Your task to perform on an android device: turn vacation reply on in the gmail app Image 0: 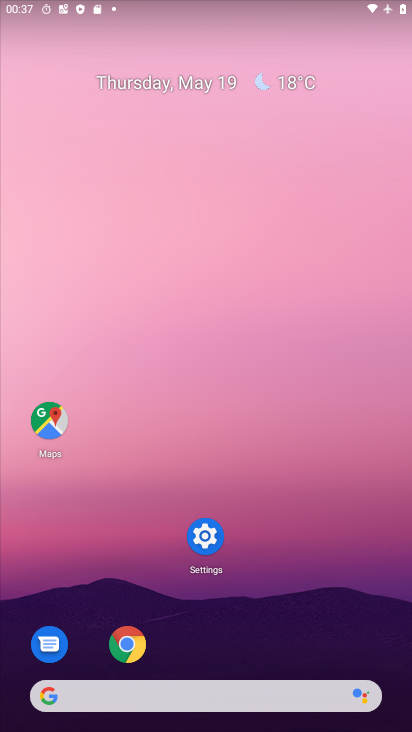
Step 0: drag from (300, 608) to (272, 124)
Your task to perform on an android device: turn vacation reply on in the gmail app Image 1: 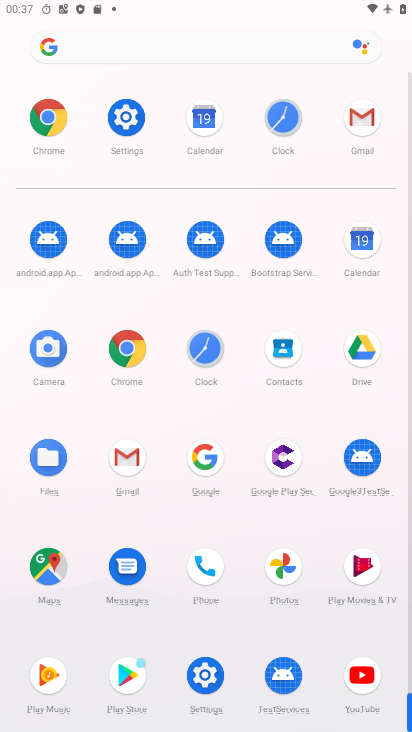
Step 1: click (376, 118)
Your task to perform on an android device: turn vacation reply on in the gmail app Image 2: 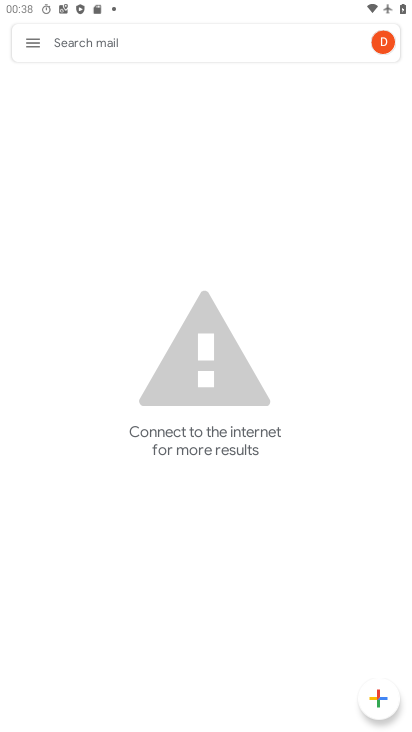
Step 2: click (28, 40)
Your task to perform on an android device: turn vacation reply on in the gmail app Image 3: 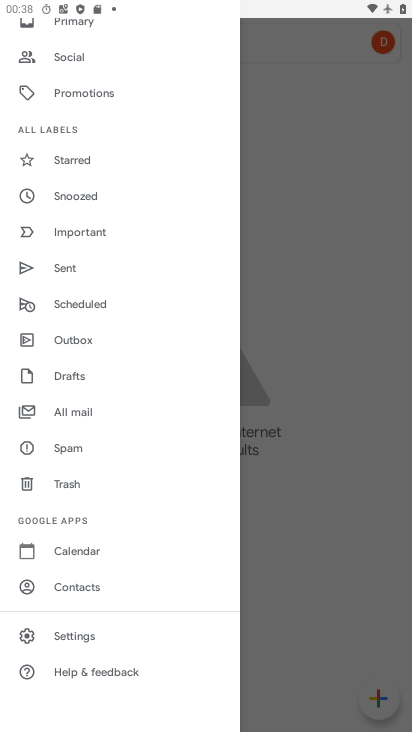
Step 3: drag from (152, 607) to (191, 213)
Your task to perform on an android device: turn vacation reply on in the gmail app Image 4: 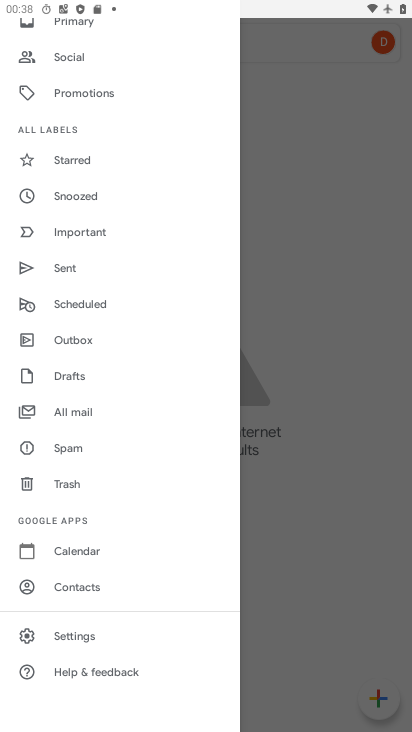
Step 4: click (83, 633)
Your task to perform on an android device: turn vacation reply on in the gmail app Image 5: 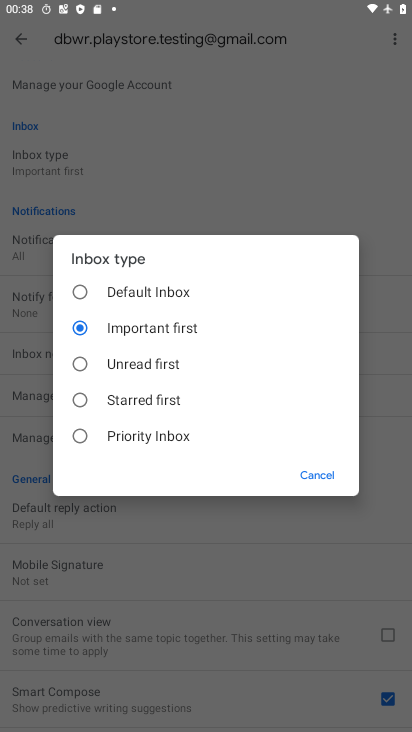
Step 5: click (317, 482)
Your task to perform on an android device: turn vacation reply on in the gmail app Image 6: 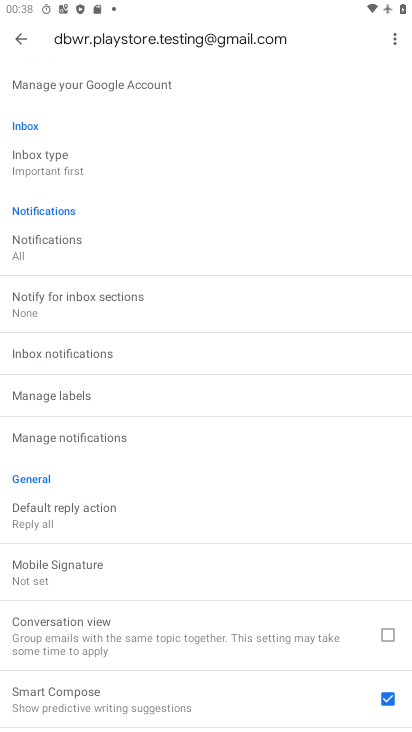
Step 6: drag from (107, 181) to (128, 397)
Your task to perform on an android device: turn vacation reply on in the gmail app Image 7: 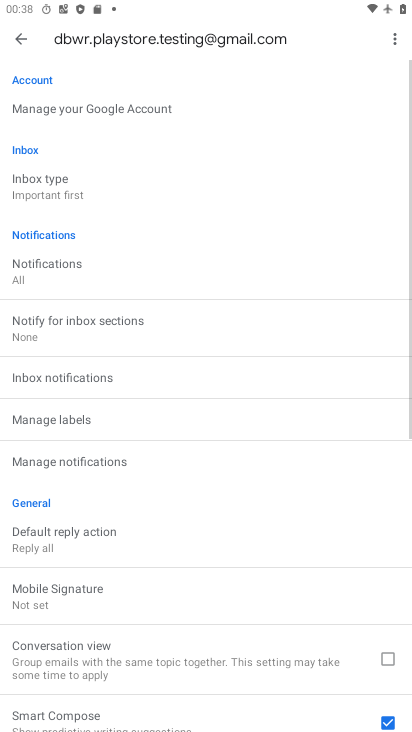
Step 7: drag from (152, 427) to (219, 647)
Your task to perform on an android device: turn vacation reply on in the gmail app Image 8: 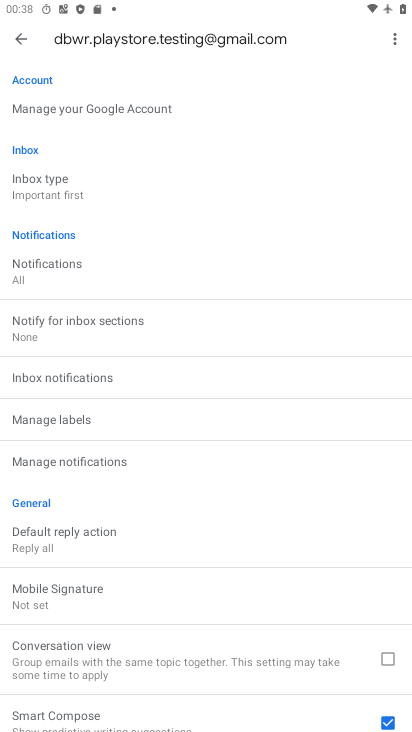
Step 8: drag from (142, 437) to (245, 175)
Your task to perform on an android device: turn vacation reply on in the gmail app Image 9: 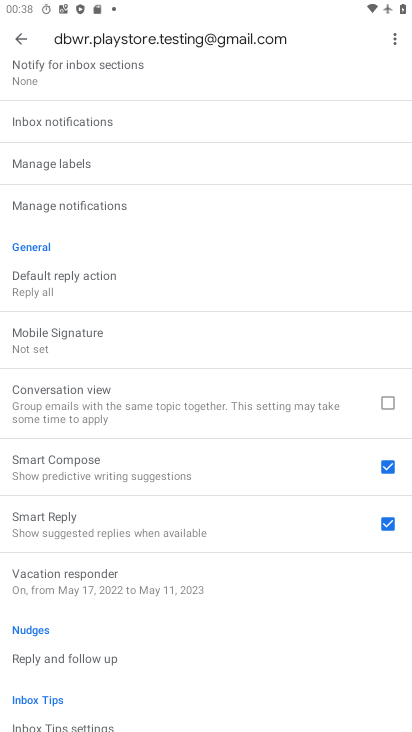
Step 9: drag from (182, 493) to (235, 244)
Your task to perform on an android device: turn vacation reply on in the gmail app Image 10: 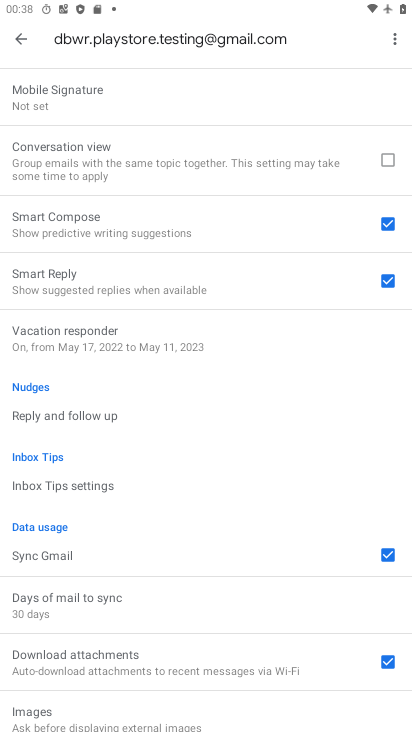
Step 10: click (162, 342)
Your task to perform on an android device: turn vacation reply on in the gmail app Image 11: 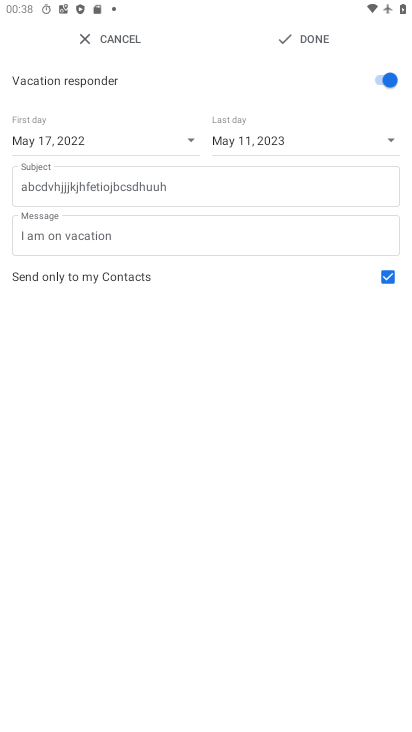
Step 11: task complete